Your task to perform on an android device: Go to Maps Image 0: 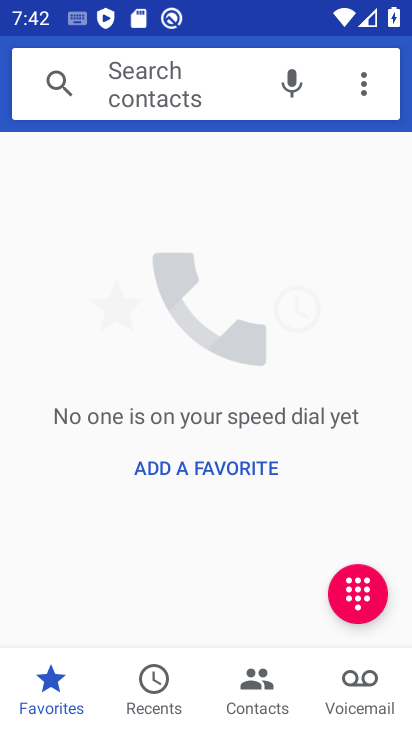
Step 0: press home button
Your task to perform on an android device: Go to Maps Image 1: 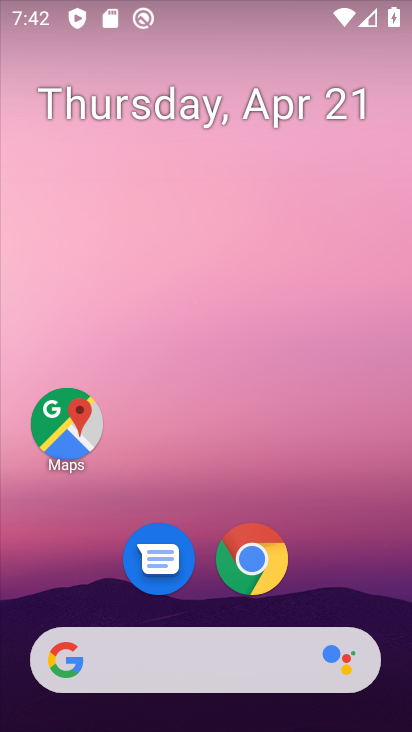
Step 1: click (61, 416)
Your task to perform on an android device: Go to Maps Image 2: 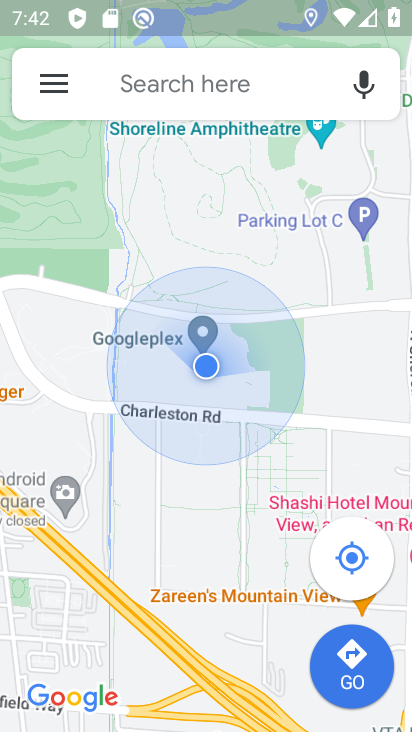
Step 2: task complete